Your task to perform on an android device: Open the contacts app Image 0: 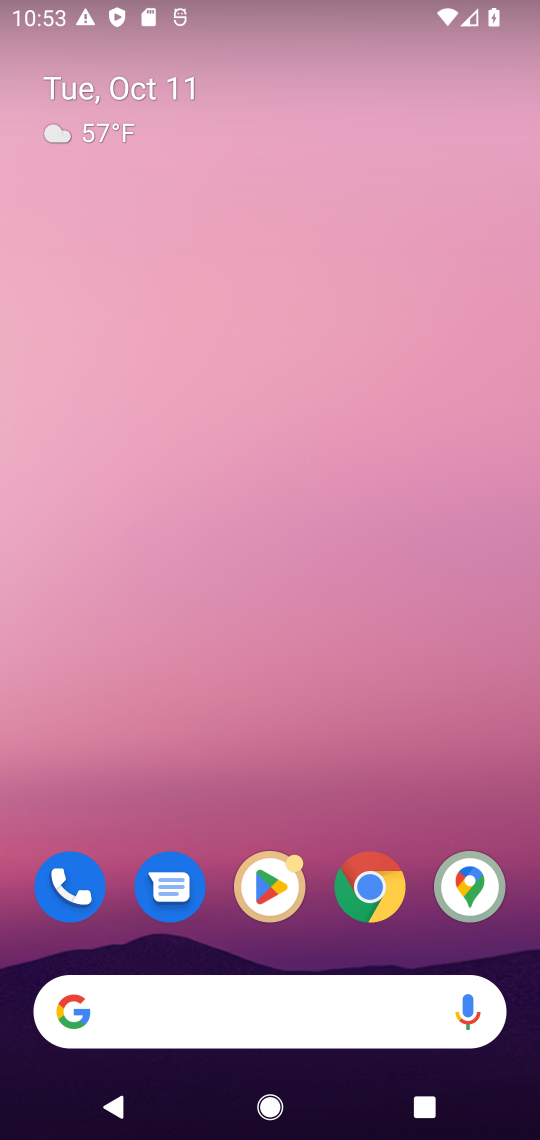
Step 0: press home button
Your task to perform on an android device: Open the contacts app Image 1: 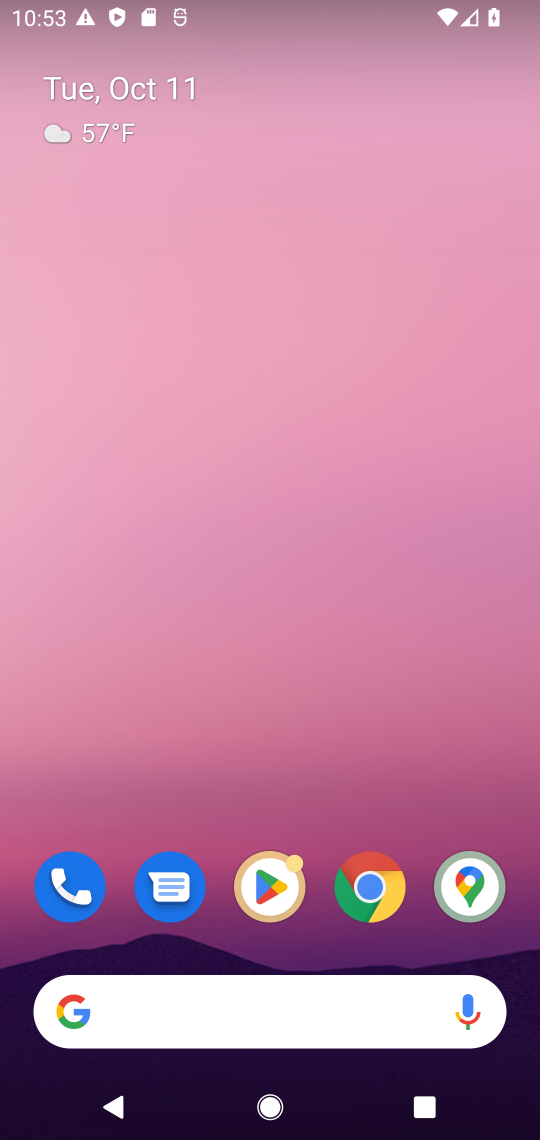
Step 1: drag from (480, 789) to (504, 219)
Your task to perform on an android device: Open the contacts app Image 2: 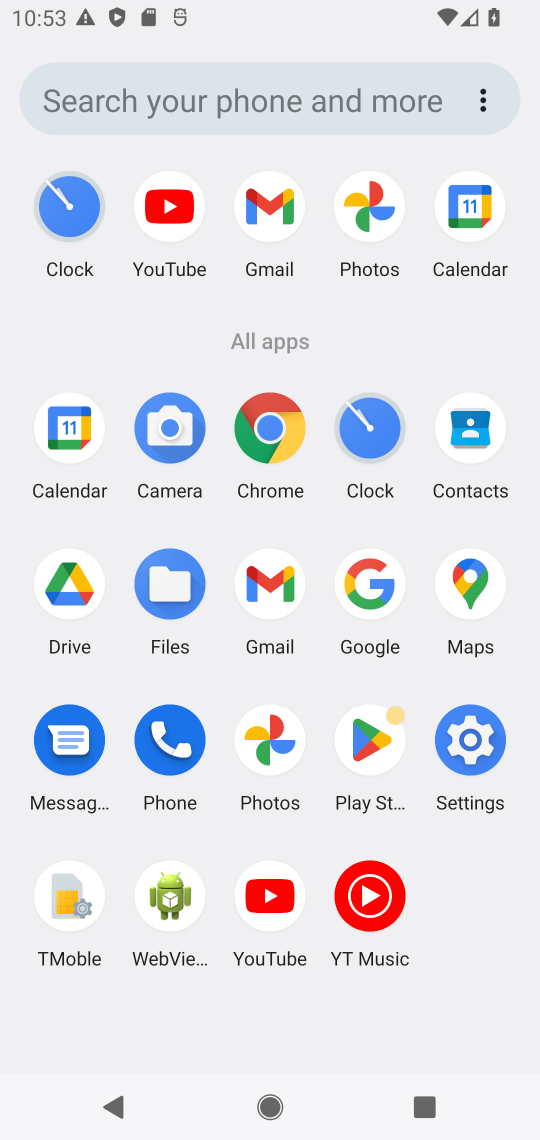
Step 2: click (480, 446)
Your task to perform on an android device: Open the contacts app Image 3: 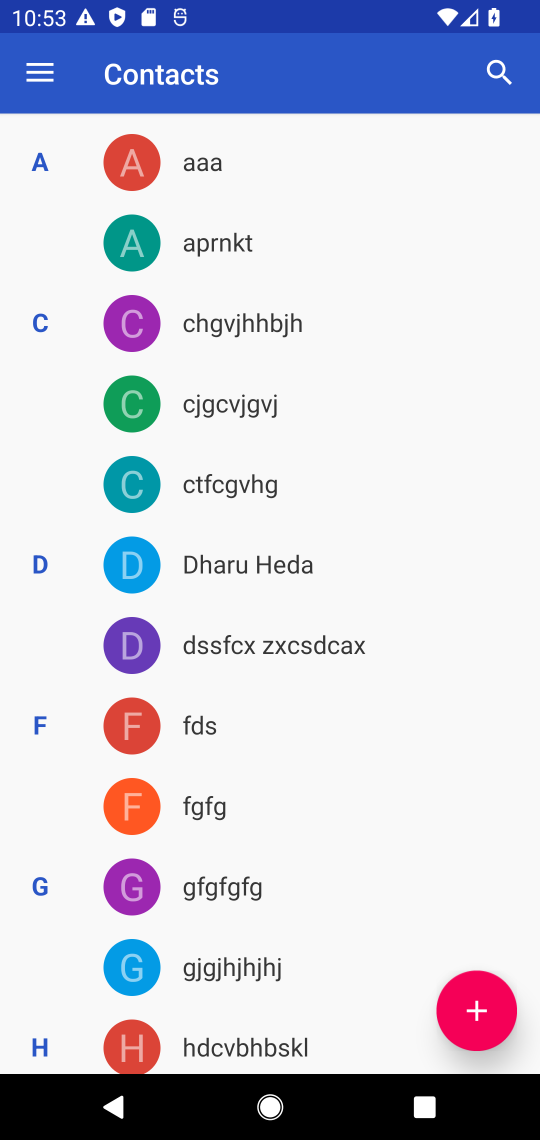
Step 3: task complete